Your task to perform on an android device: open a new tab in the chrome app Image 0: 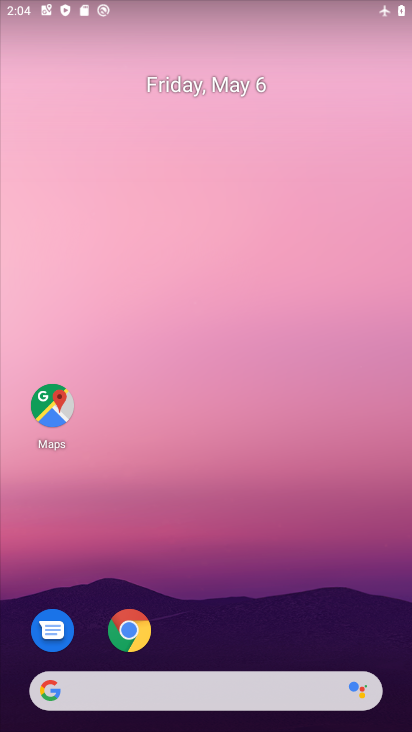
Step 0: click (127, 624)
Your task to perform on an android device: open a new tab in the chrome app Image 1: 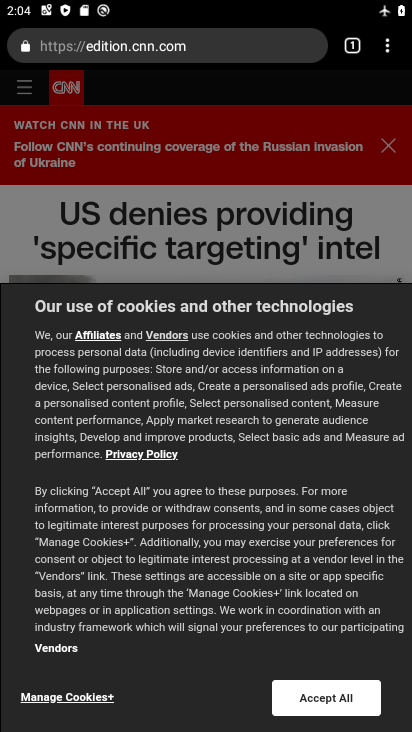
Step 1: click (387, 61)
Your task to perform on an android device: open a new tab in the chrome app Image 2: 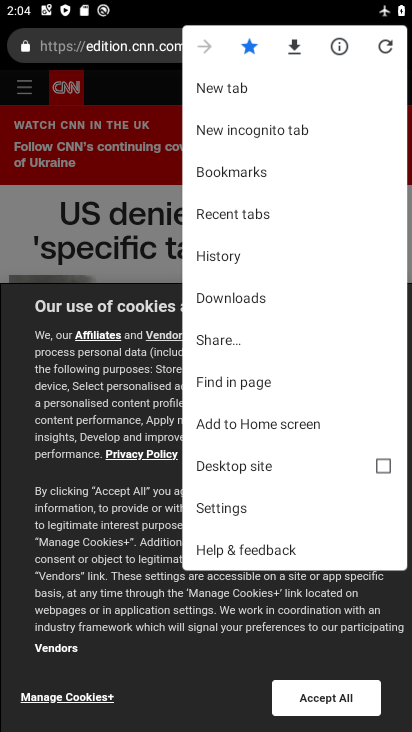
Step 2: click (237, 78)
Your task to perform on an android device: open a new tab in the chrome app Image 3: 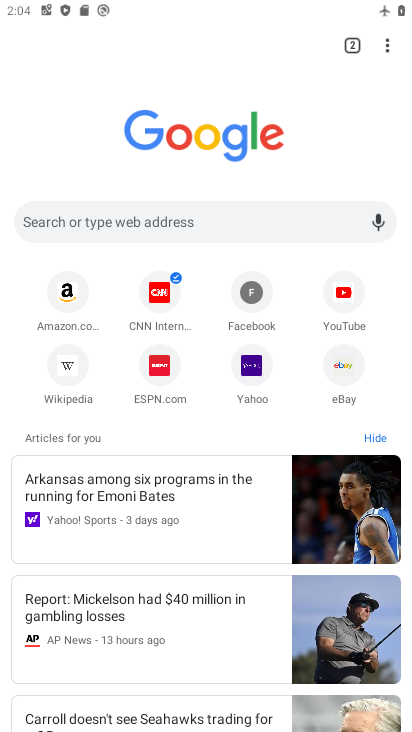
Step 3: task complete